Your task to perform on an android device: change the clock display to show seconds Image 0: 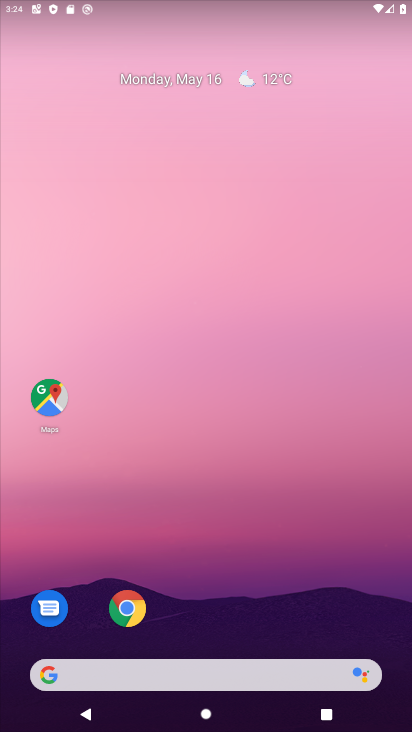
Step 0: drag from (219, 637) to (284, 272)
Your task to perform on an android device: change the clock display to show seconds Image 1: 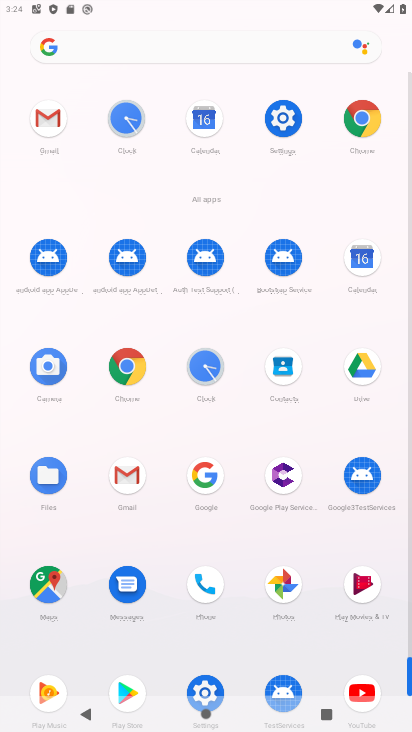
Step 1: click (208, 363)
Your task to perform on an android device: change the clock display to show seconds Image 2: 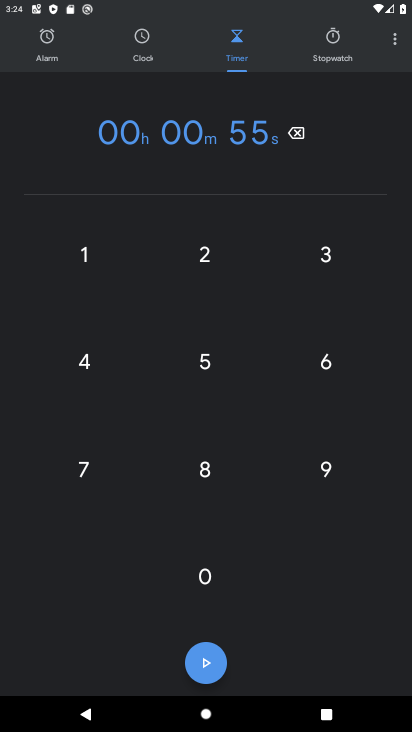
Step 2: click (390, 40)
Your task to perform on an android device: change the clock display to show seconds Image 3: 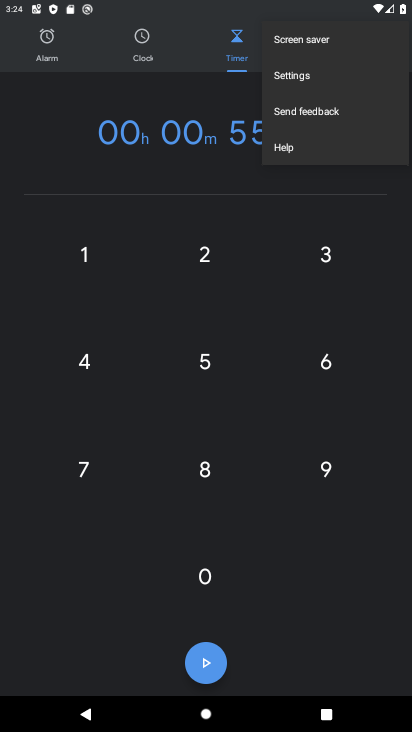
Step 3: click (324, 74)
Your task to perform on an android device: change the clock display to show seconds Image 4: 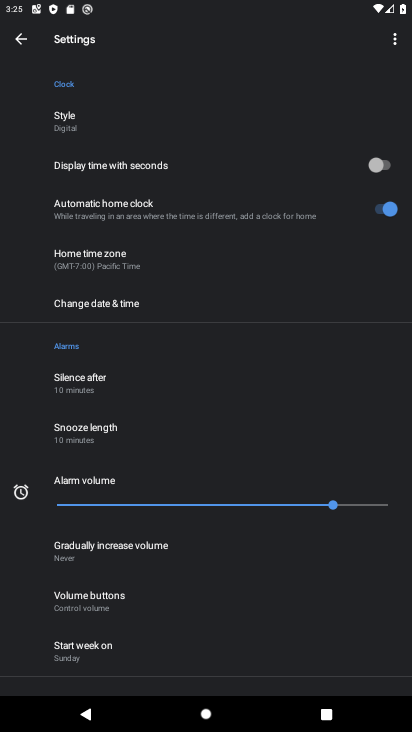
Step 4: click (390, 166)
Your task to perform on an android device: change the clock display to show seconds Image 5: 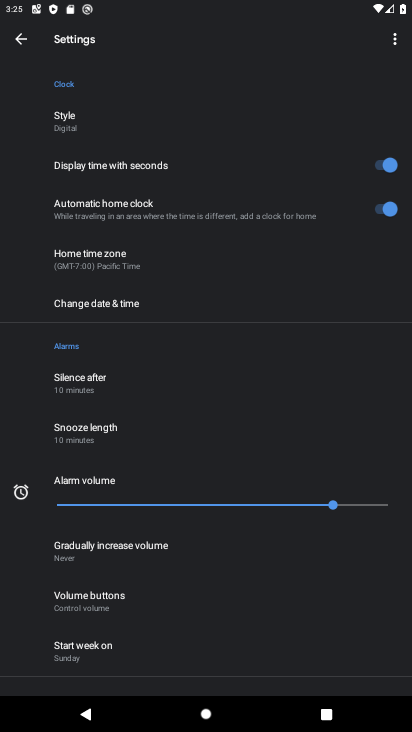
Step 5: task complete